Your task to perform on an android device: remove spam from my inbox in the gmail app Image 0: 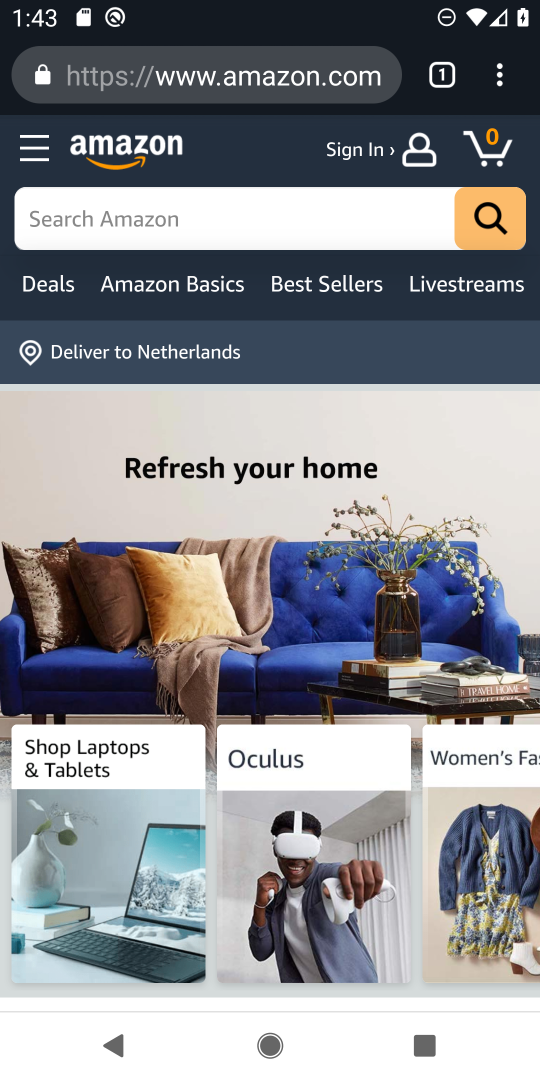
Step 0: press home button
Your task to perform on an android device: remove spam from my inbox in the gmail app Image 1: 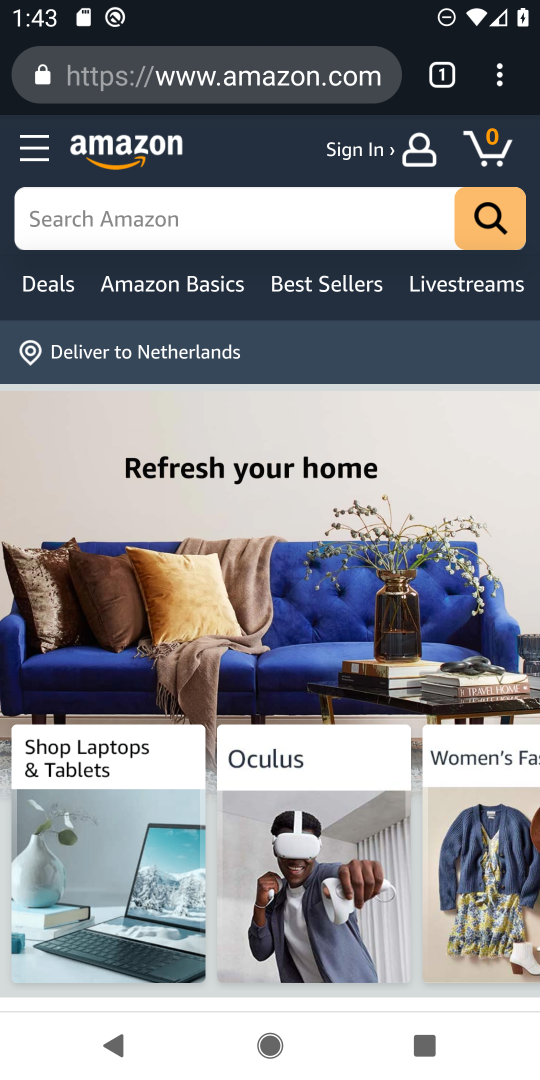
Step 1: press home button
Your task to perform on an android device: remove spam from my inbox in the gmail app Image 2: 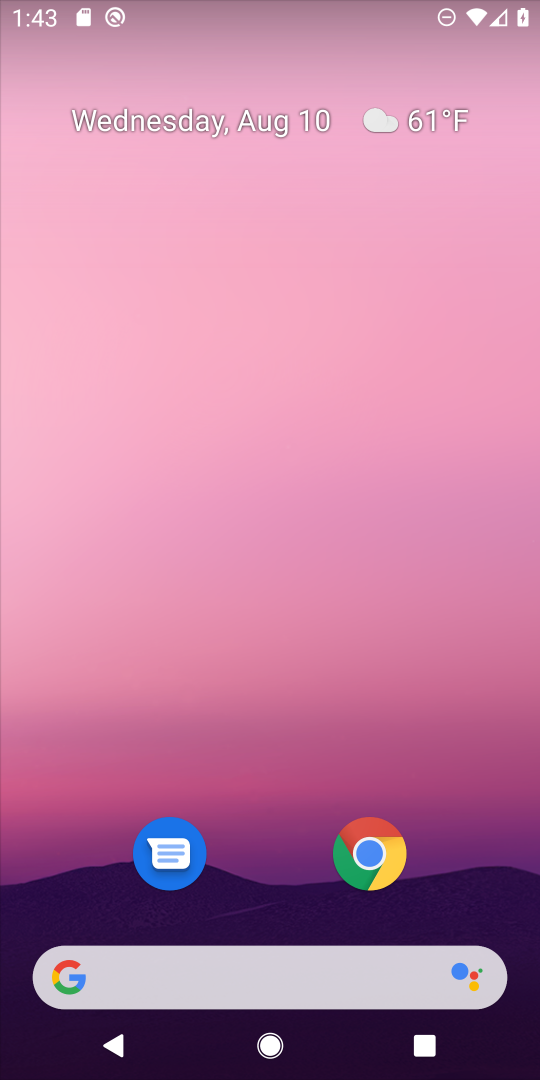
Step 2: press home button
Your task to perform on an android device: remove spam from my inbox in the gmail app Image 3: 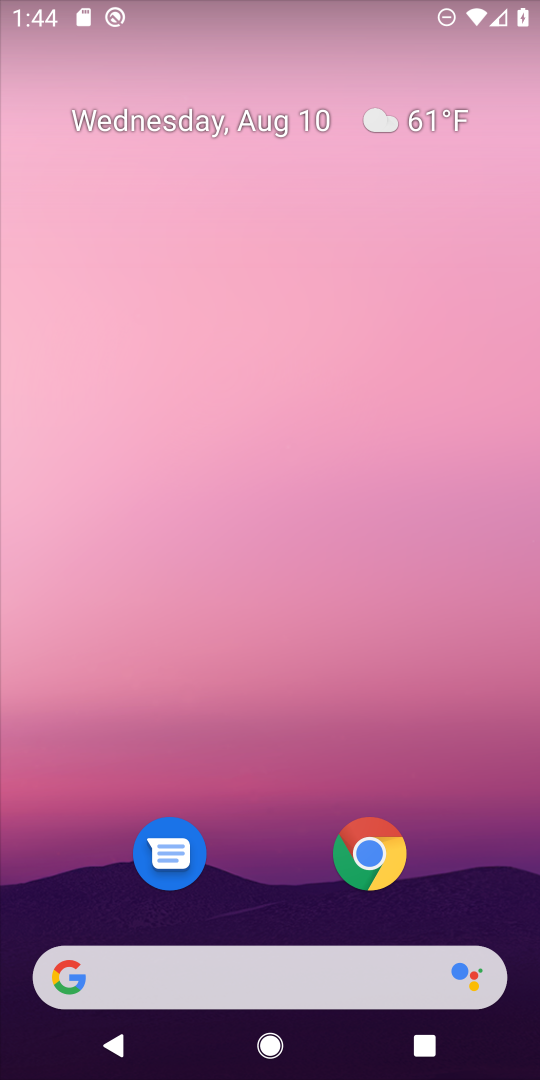
Step 3: drag from (232, 758) to (271, 231)
Your task to perform on an android device: remove spam from my inbox in the gmail app Image 4: 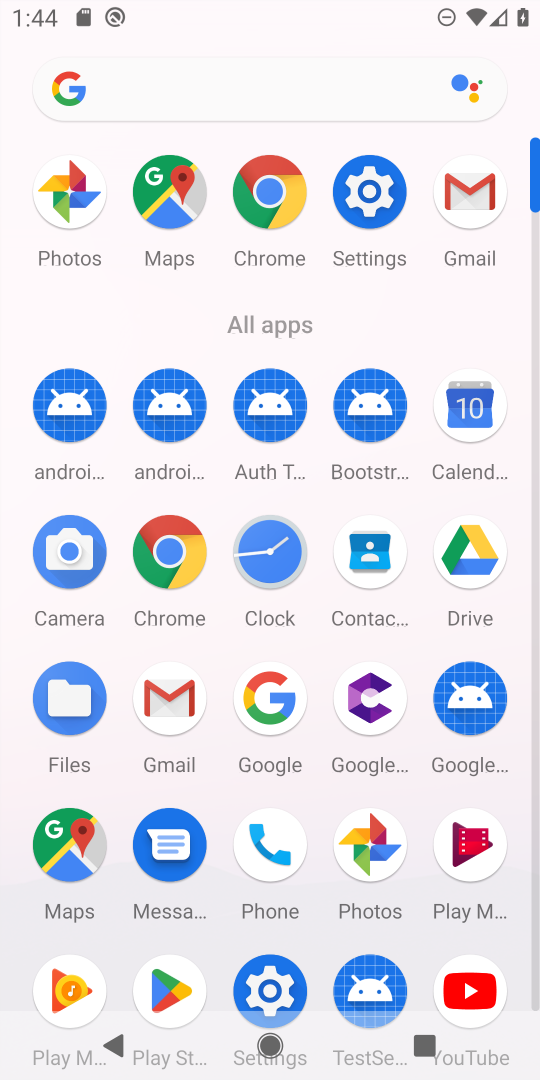
Step 4: click (461, 204)
Your task to perform on an android device: remove spam from my inbox in the gmail app Image 5: 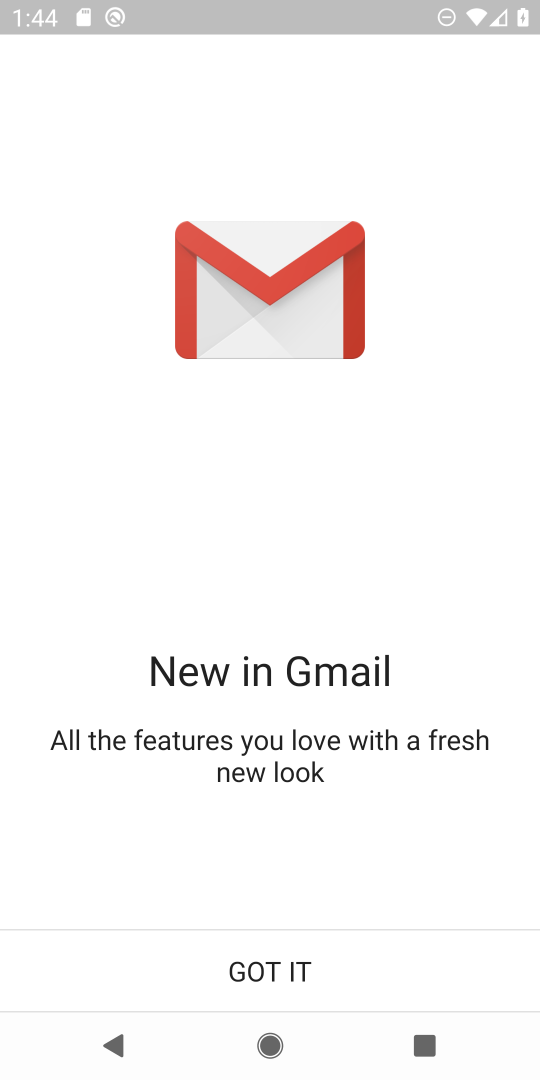
Step 5: click (266, 967)
Your task to perform on an android device: remove spam from my inbox in the gmail app Image 6: 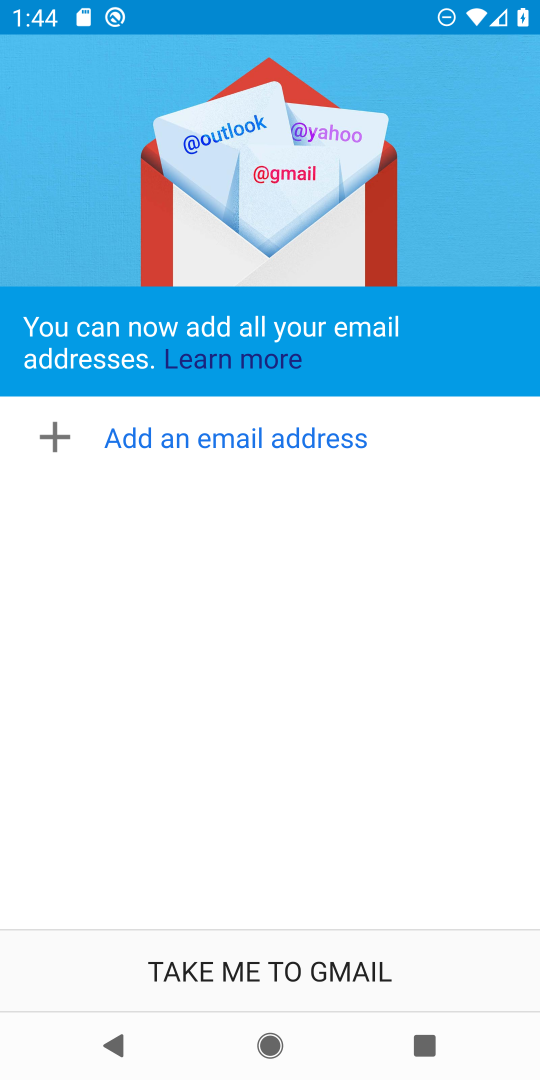
Step 6: click (266, 967)
Your task to perform on an android device: remove spam from my inbox in the gmail app Image 7: 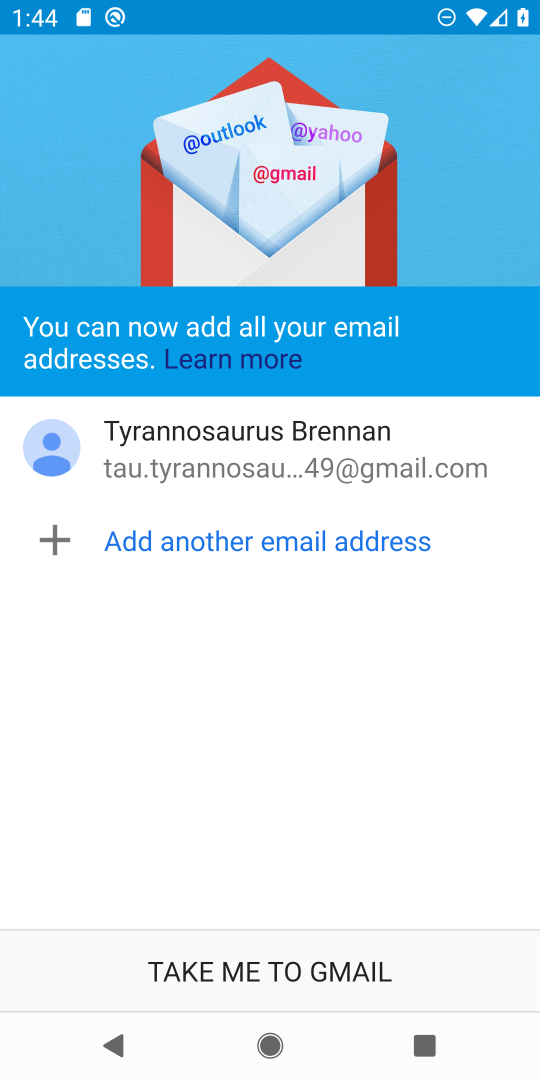
Step 7: click (266, 967)
Your task to perform on an android device: remove spam from my inbox in the gmail app Image 8: 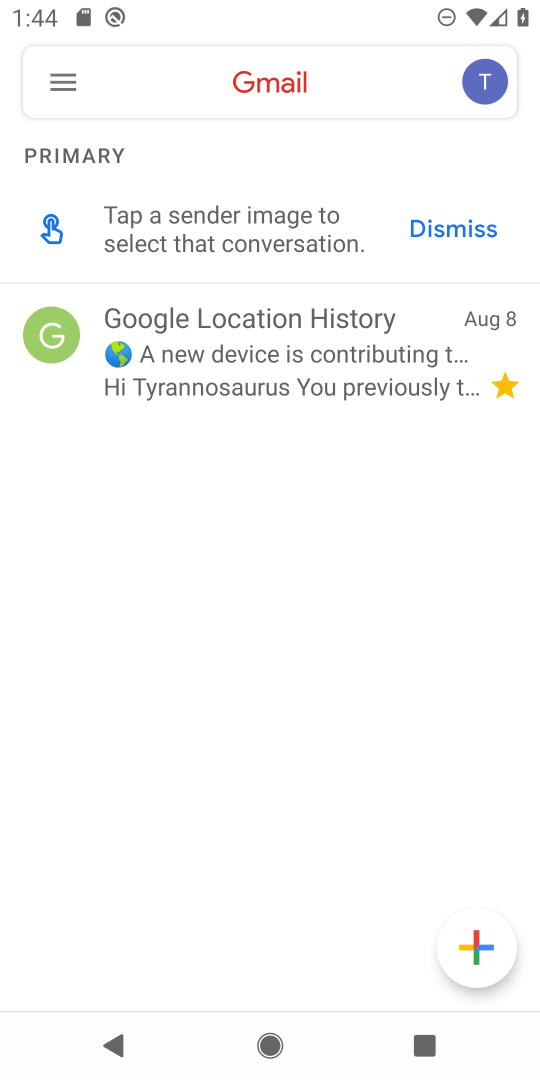
Step 8: task complete